Your task to perform on an android device: Turn off the flashlight Image 0: 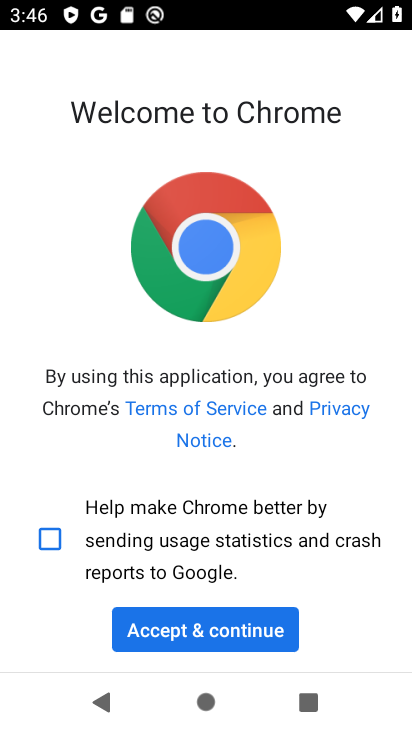
Step 0: press home button
Your task to perform on an android device: Turn off the flashlight Image 1: 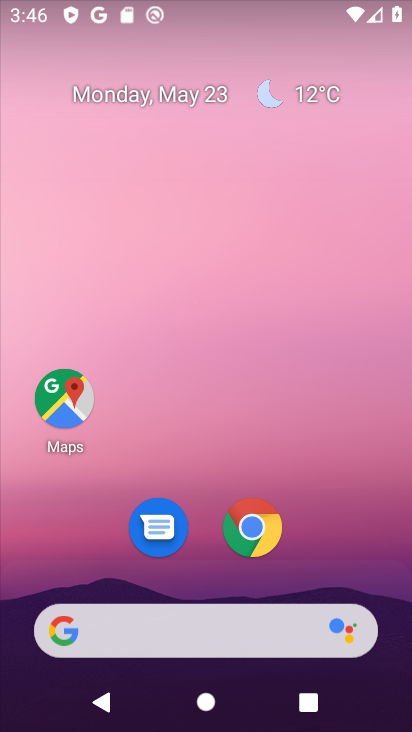
Step 1: press home button
Your task to perform on an android device: Turn off the flashlight Image 2: 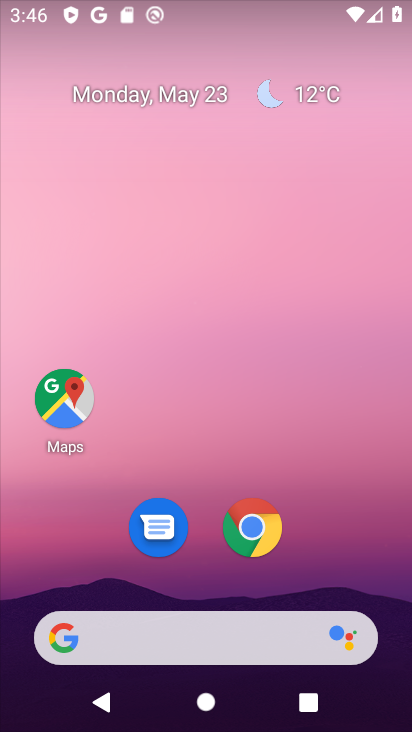
Step 2: drag from (199, 584) to (205, 95)
Your task to perform on an android device: Turn off the flashlight Image 3: 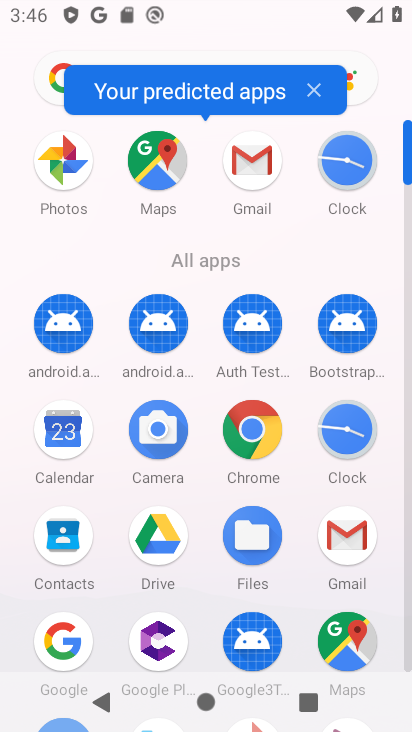
Step 3: drag from (199, 504) to (210, 94)
Your task to perform on an android device: Turn off the flashlight Image 4: 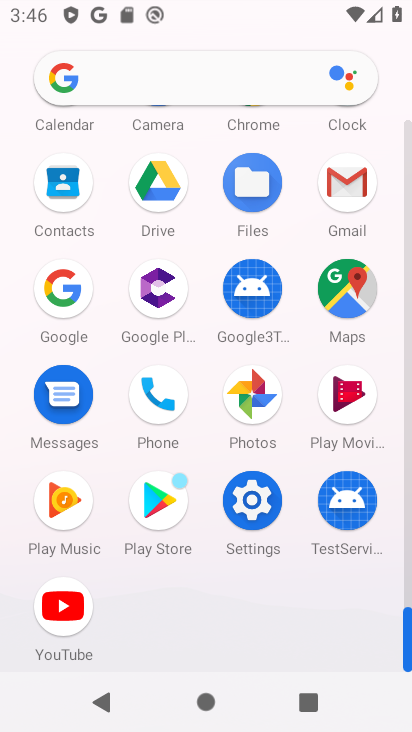
Step 4: click (249, 491)
Your task to perform on an android device: Turn off the flashlight Image 5: 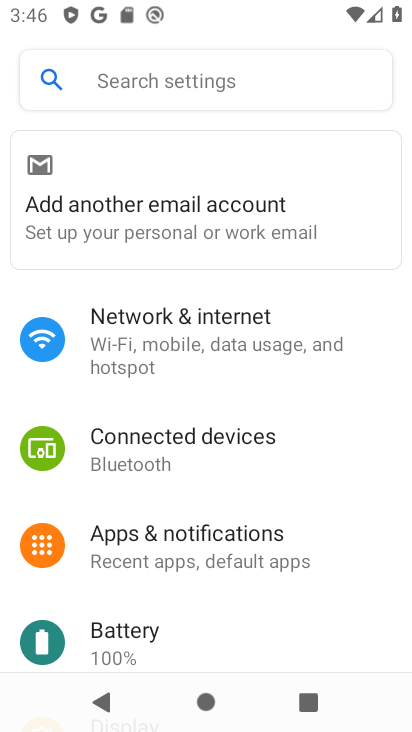
Step 5: click (145, 75)
Your task to perform on an android device: Turn off the flashlight Image 6: 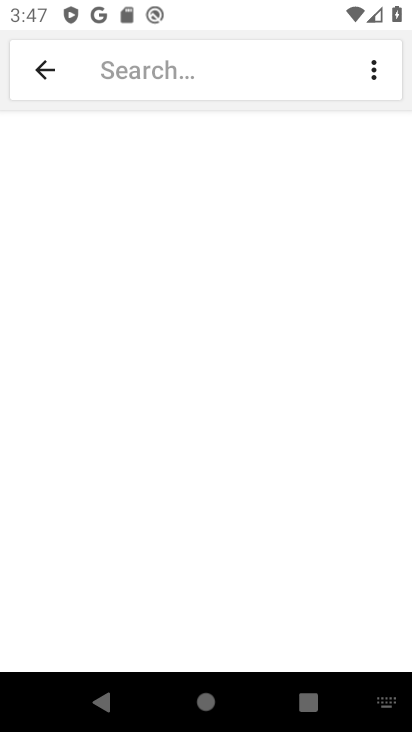
Step 6: type "flashlight"
Your task to perform on an android device: Turn off the flashlight Image 7: 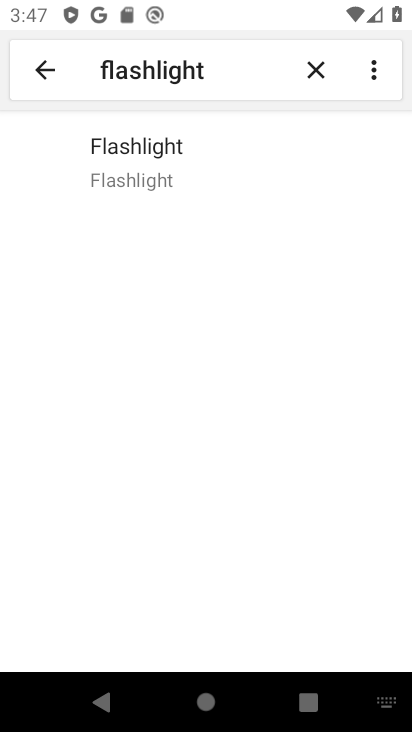
Step 7: click (183, 158)
Your task to perform on an android device: Turn off the flashlight Image 8: 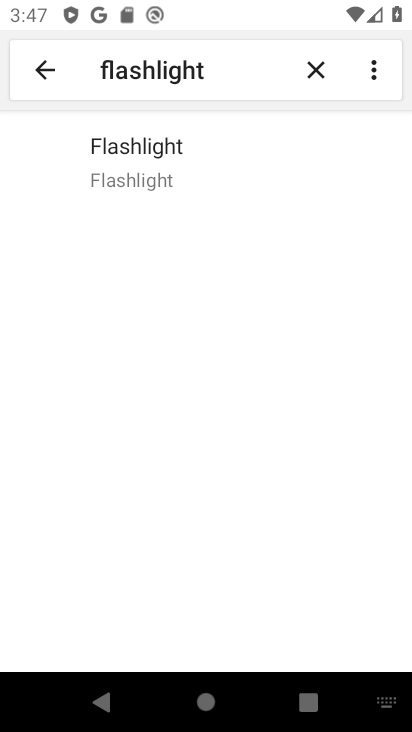
Step 8: click (184, 162)
Your task to perform on an android device: Turn off the flashlight Image 9: 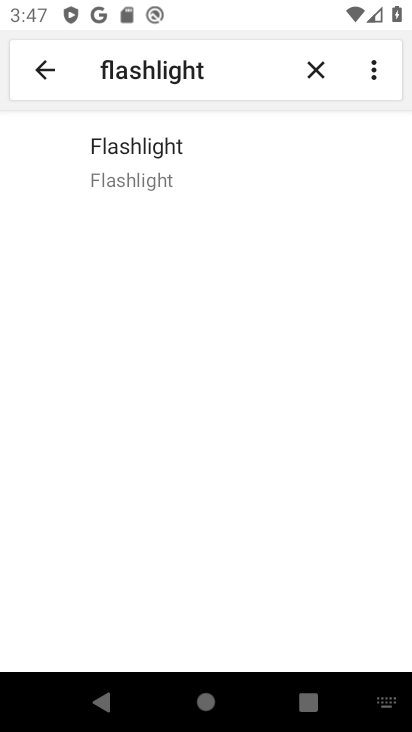
Step 9: task complete